Your task to perform on an android device: move a message to another label in the gmail app Image 0: 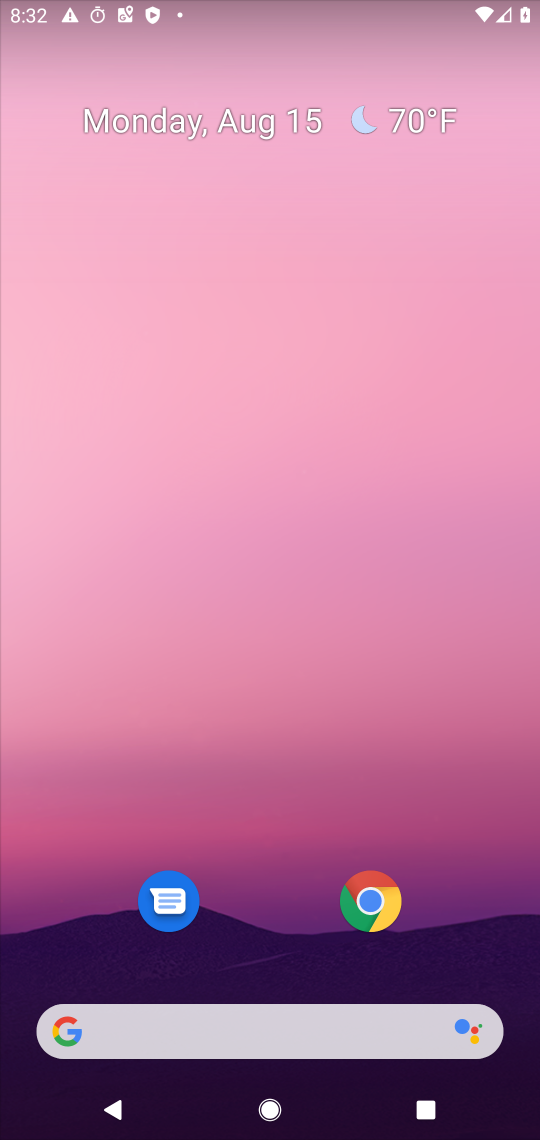
Step 0: drag from (222, 970) to (399, 10)
Your task to perform on an android device: move a message to another label in the gmail app Image 1: 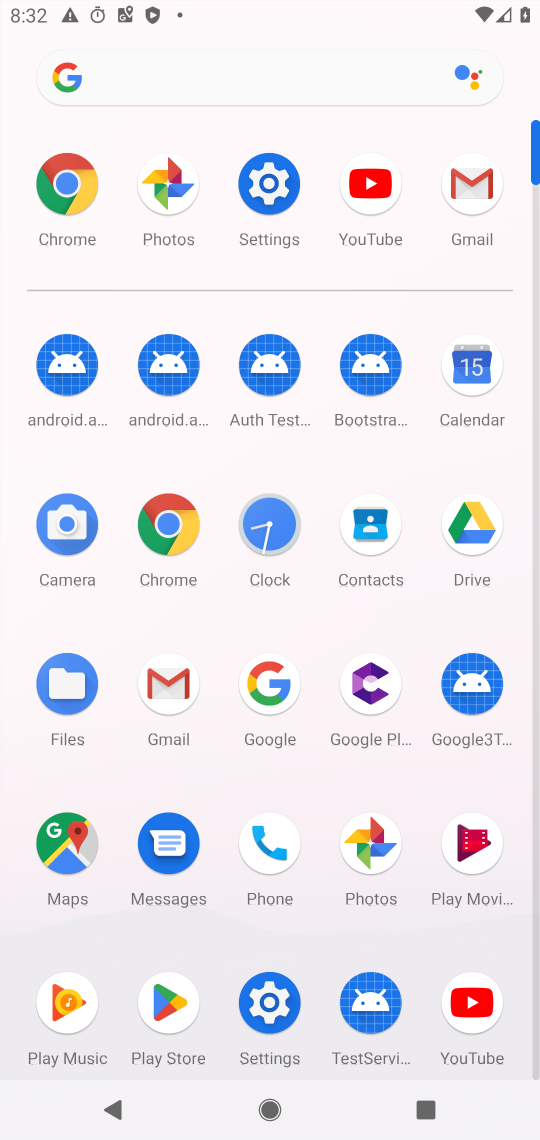
Step 1: click (166, 701)
Your task to perform on an android device: move a message to another label in the gmail app Image 2: 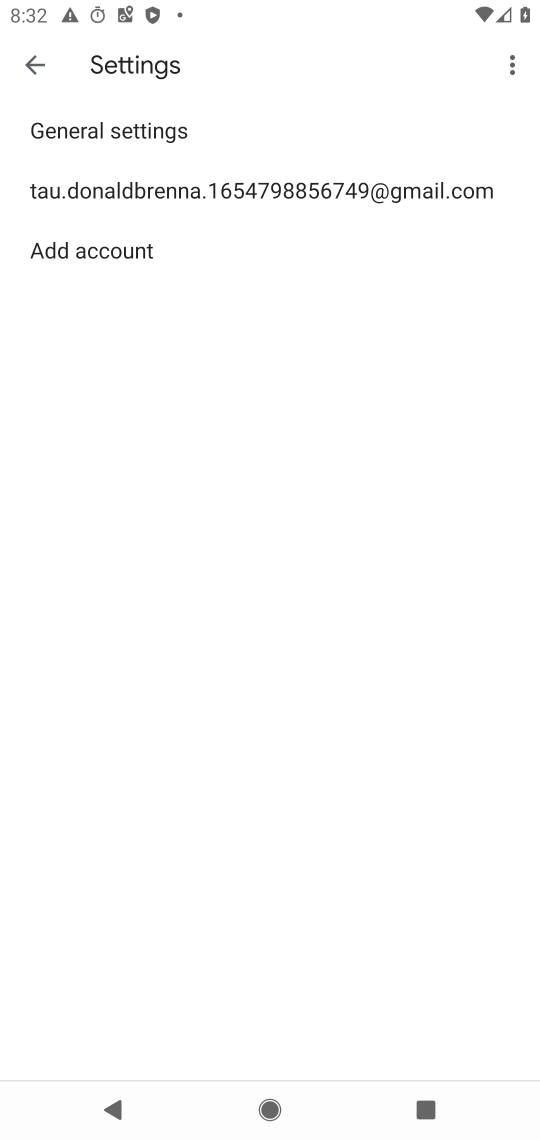
Step 2: click (33, 65)
Your task to perform on an android device: move a message to another label in the gmail app Image 3: 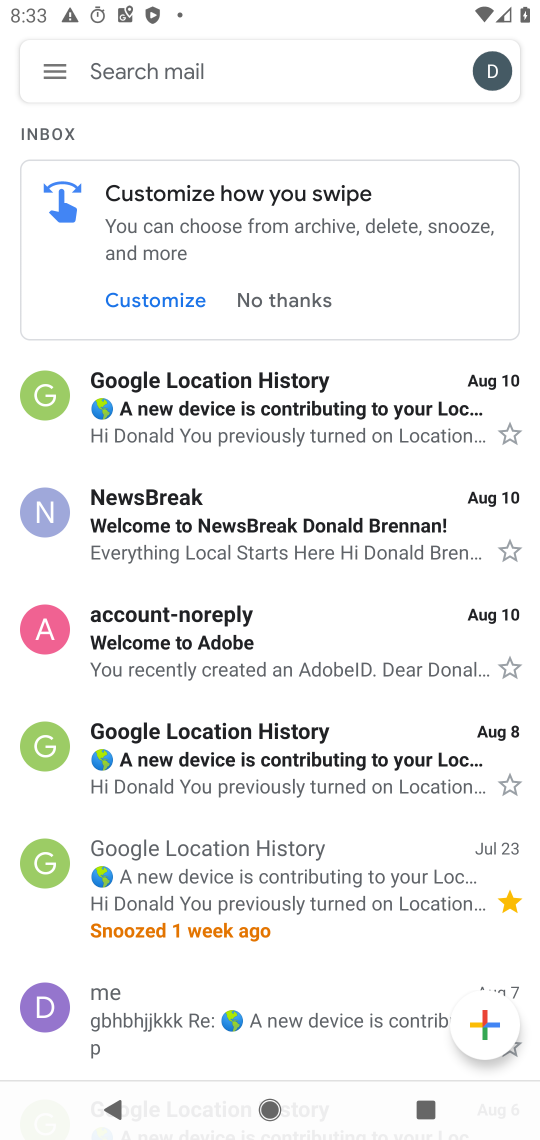
Step 3: click (34, 398)
Your task to perform on an android device: move a message to another label in the gmail app Image 4: 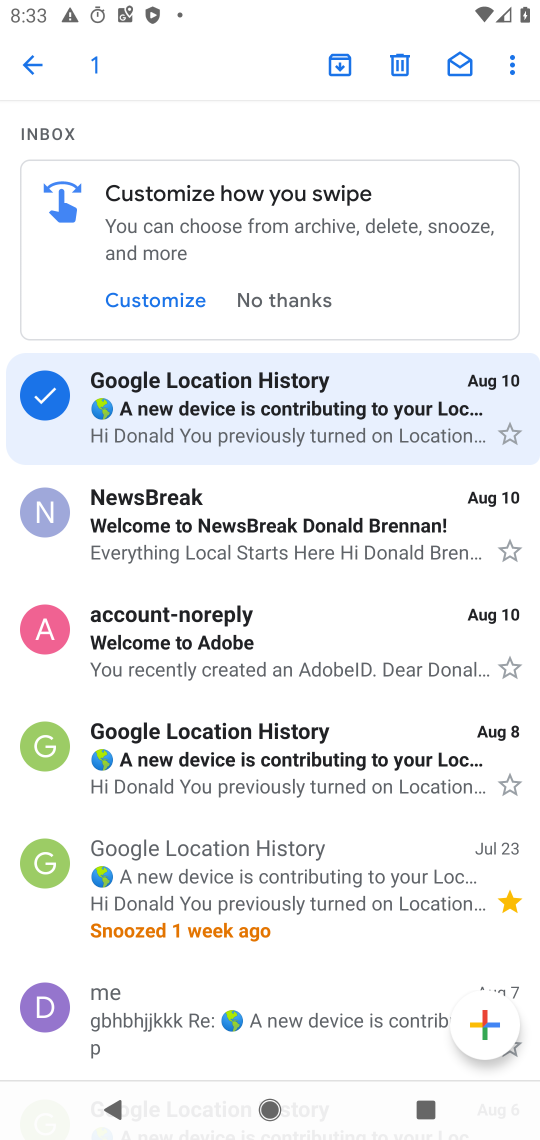
Step 4: click (512, 65)
Your task to perform on an android device: move a message to another label in the gmail app Image 5: 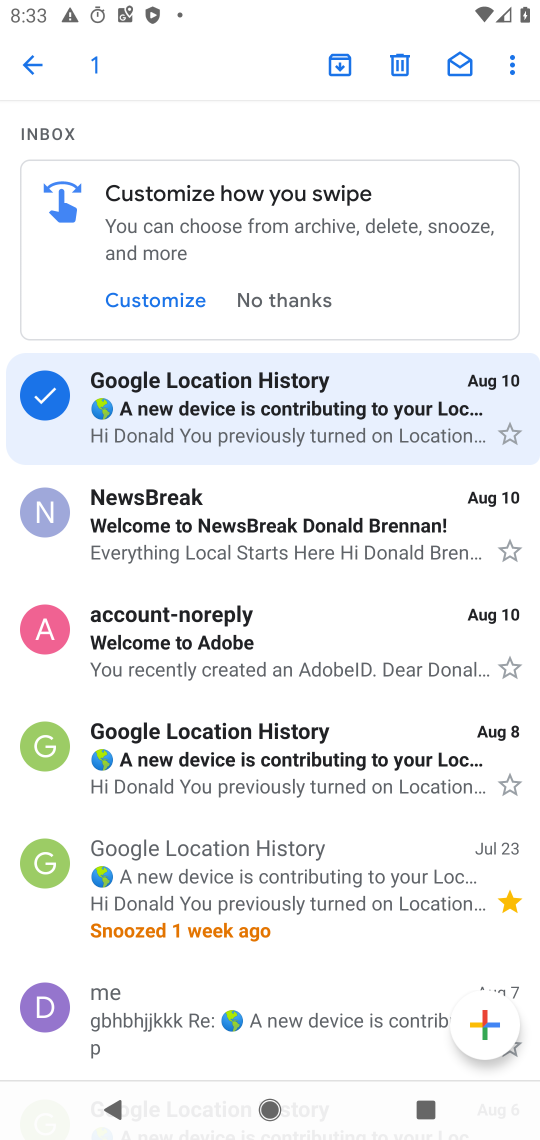
Step 5: click (502, 63)
Your task to perform on an android device: move a message to another label in the gmail app Image 6: 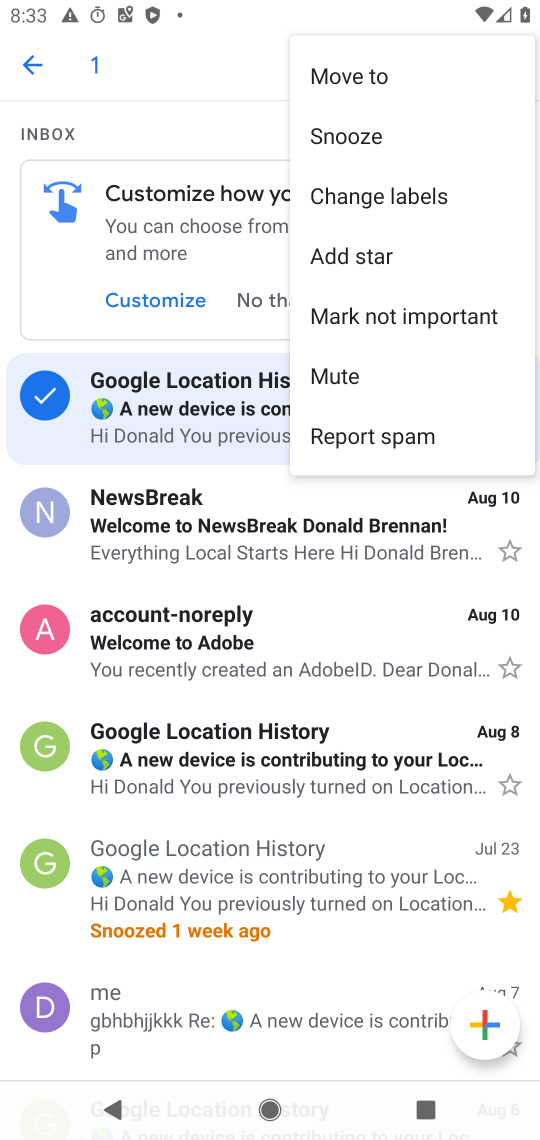
Step 6: click (381, 75)
Your task to perform on an android device: move a message to another label in the gmail app Image 7: 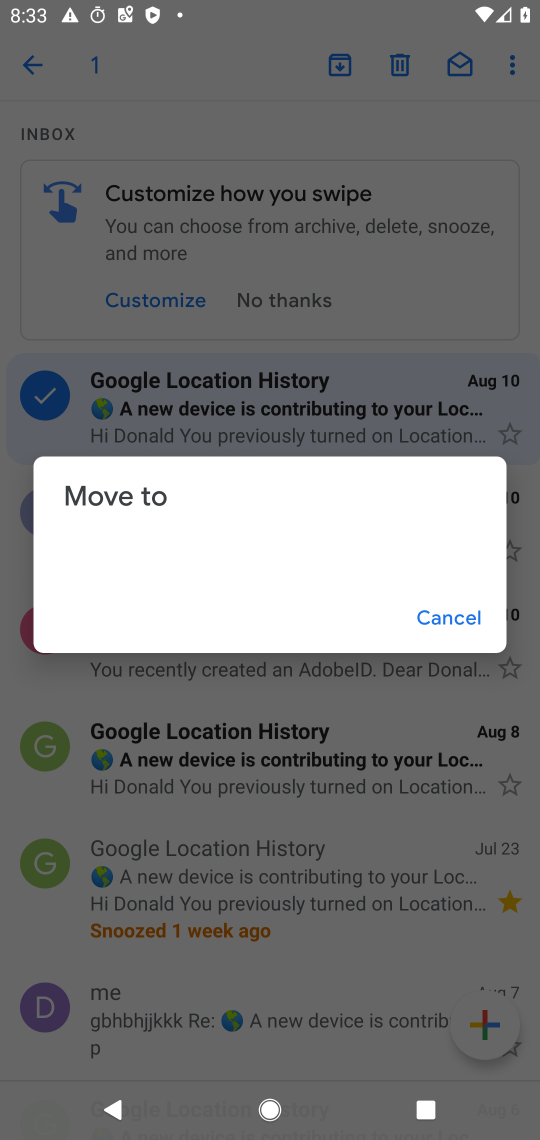
Step 7: click (450, 626)
Your task to perform on an android device: move a message to another label in the gmail app Image 8: 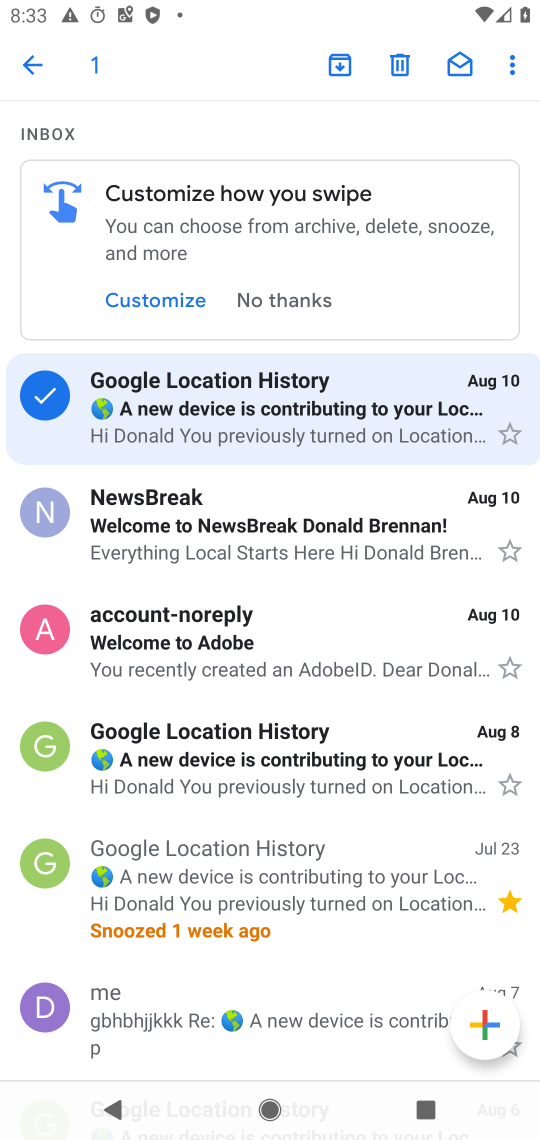
Step 8: click (522, 63)
Your task to perform on an android device: move a message to another label in the gmail app Image 9: 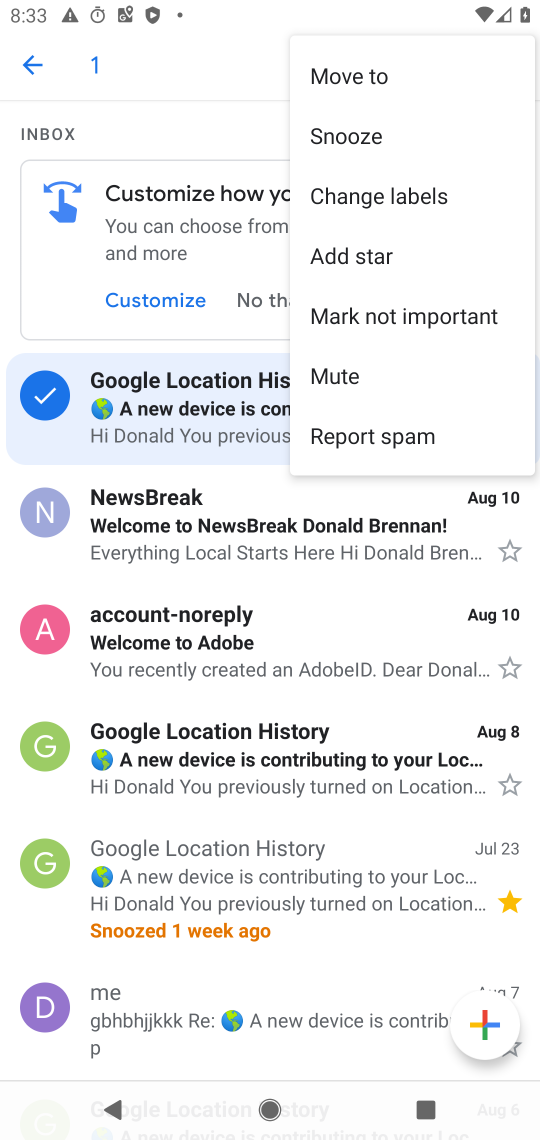
Step 9: click (404, 200)
Your task to perform on an android device: move a message to another label in the gmail app Image 10: 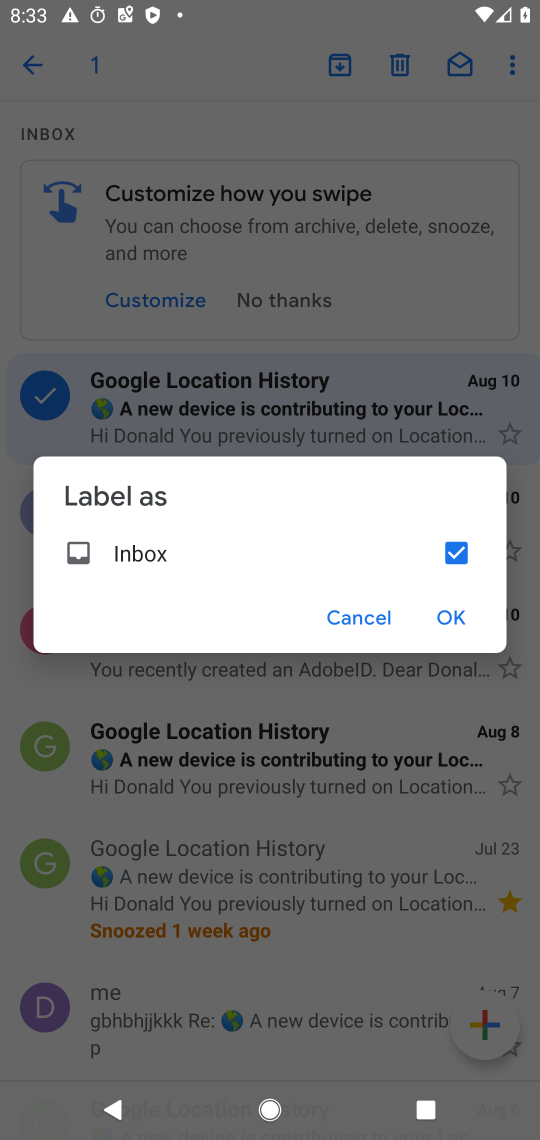
Step 10: click (457, 559)
Your task to perform on an android device: move a message to another label in the gmail app Image 11: 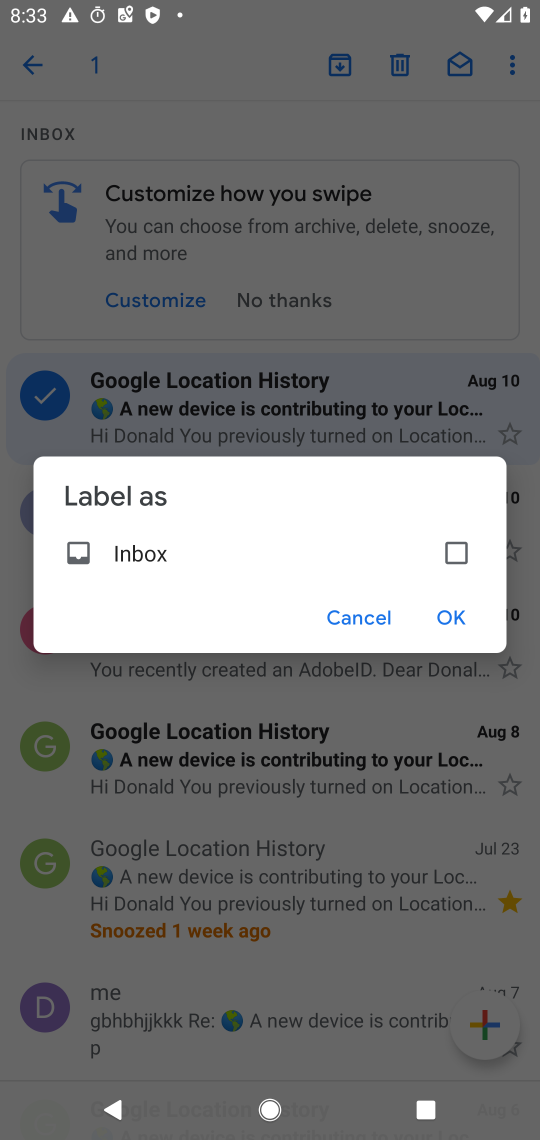
Step 11: click (457, 616)
Your task to perform on an android device: move a message to another label in the gmail app Image 12: 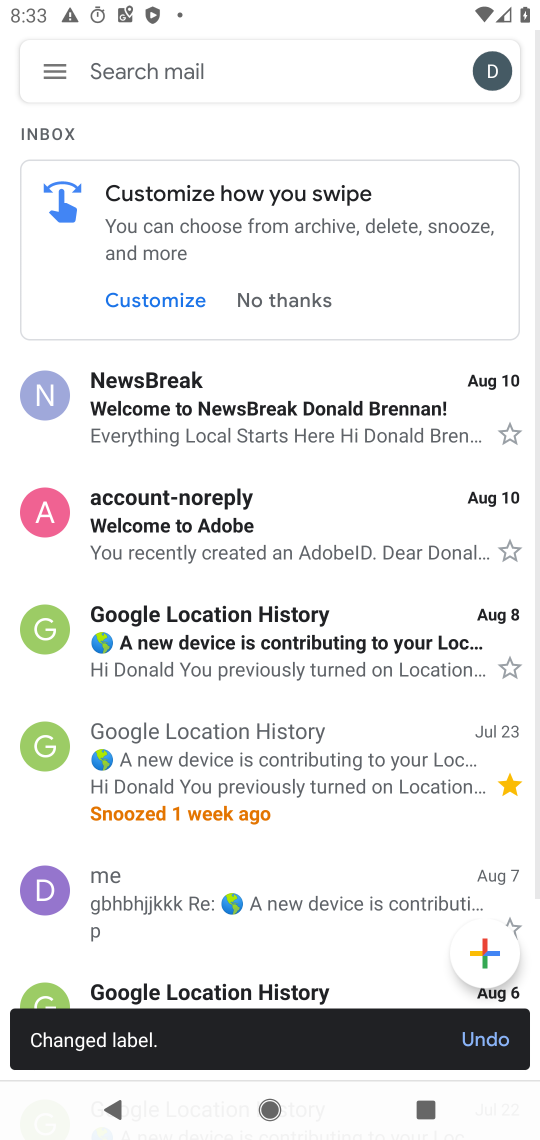
Step 12: task complete